Your task to perform on an android device: Open eBay Image 0: 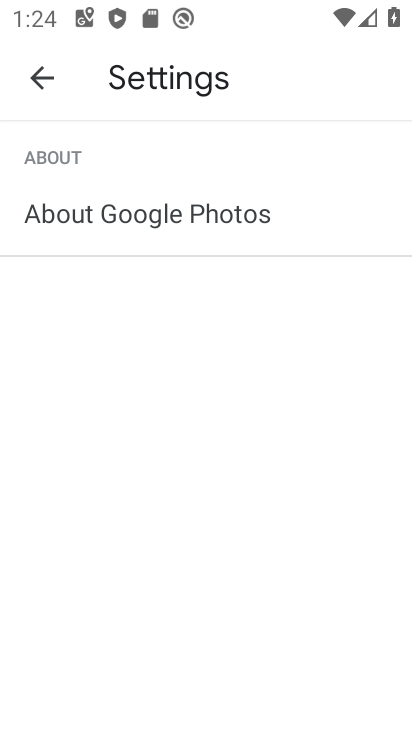
Step 0: click (39, 77)
Your task to perform on an android device: Open eBay Image 1: 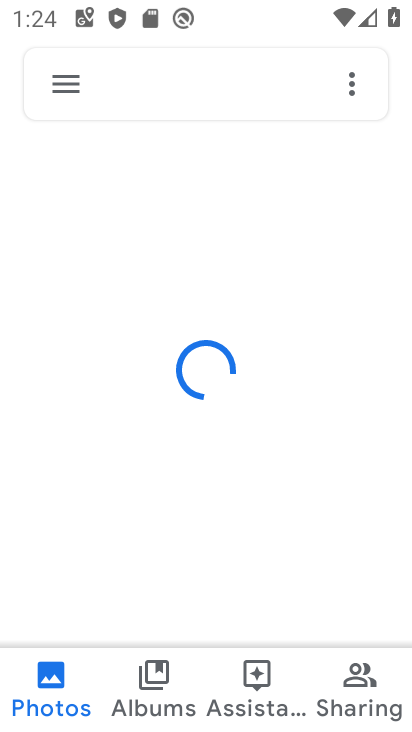
Step 1: press back button
Your task to perform on an android device: Open eBay Image 2: 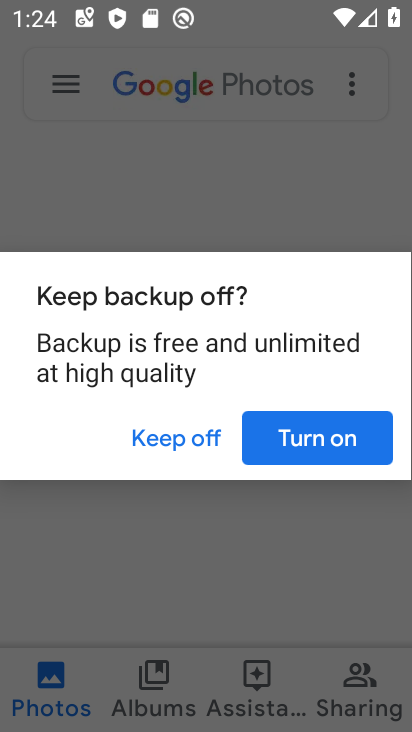
Step 2: click (177, 438)
Your task to perform on an android device: Open eBay Image 3: 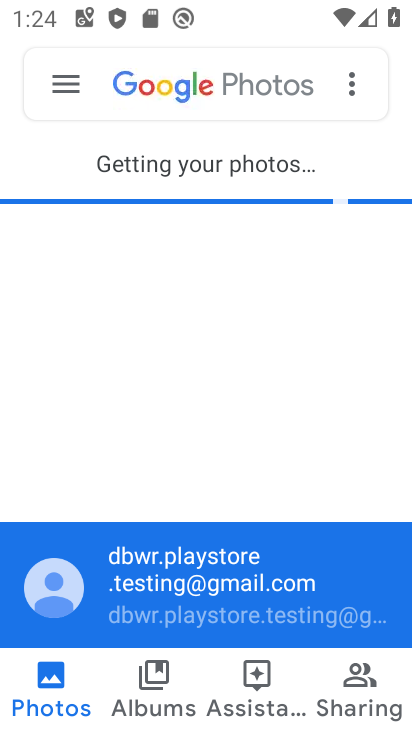
Step 3: press home button
Your task to perform on an android device: Open eBay Image 4: 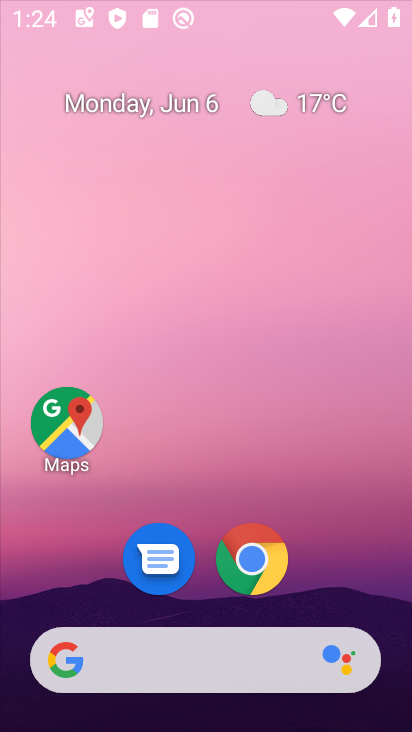
Step 4: drag from (253, 441) to (201, 126)
Your task to perform on an android device: Open eBay Image 5: 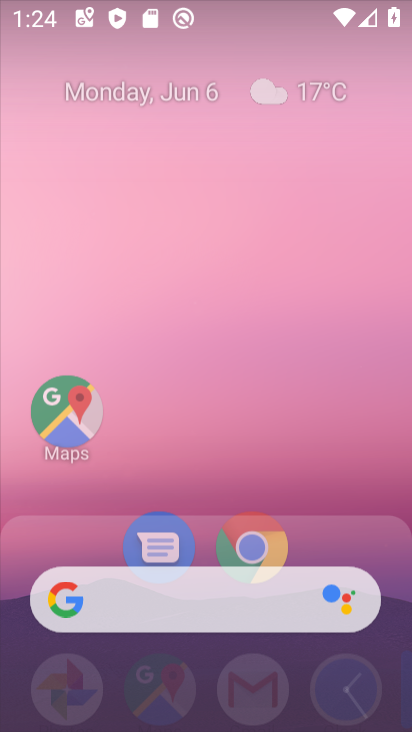
Step 5: drag from (230, 537) to (273, 326)
Your task to perform on an android device: Open eBay Image 6: 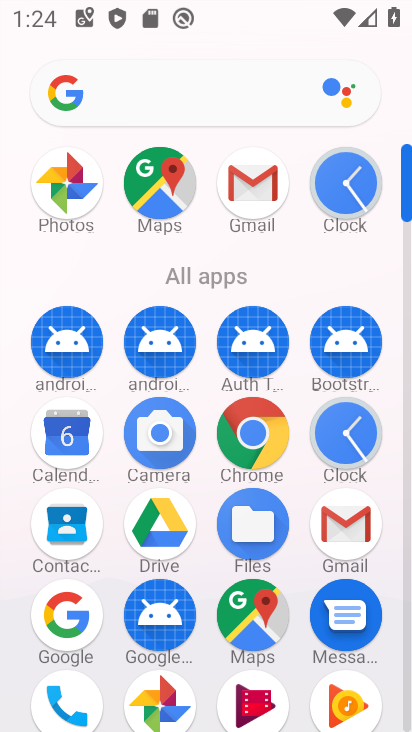
Step 6: drag from (203, 632) to (139, 206)
Your task to perform on an android device: Open eBay Image 7: 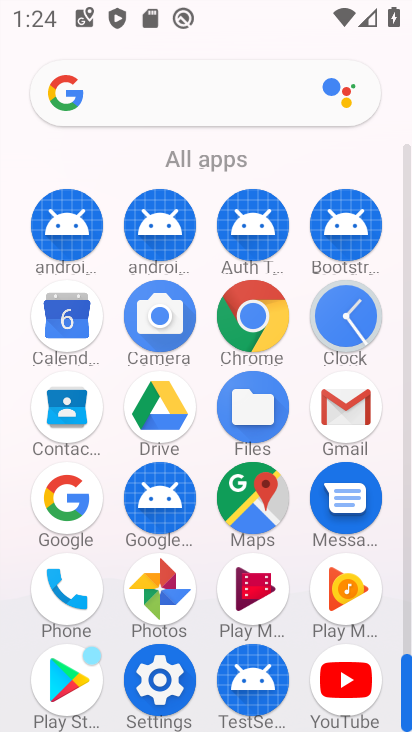
Step 7: click (243, 319)
Your task to perform on an android device: Open eBay Image 8: 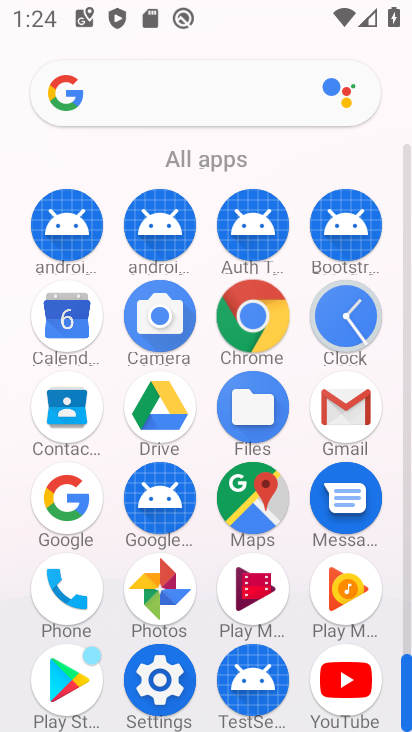
Step 8: click (245, 317)
Your task to perform on an android device: Open eBay Image 9: 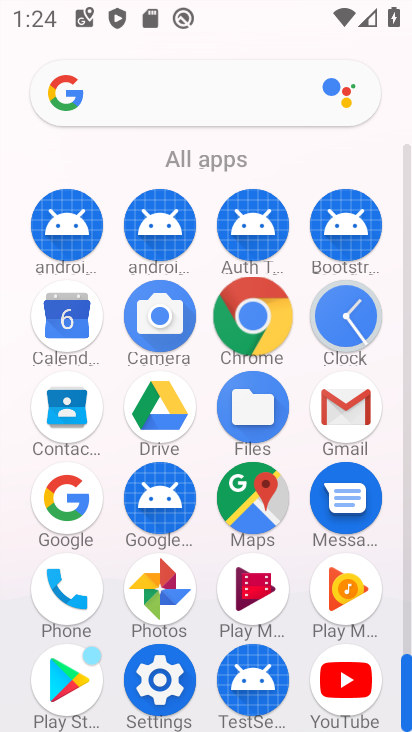
Step 9: click (246, 320)
Your task to perform on an android device: Open eBay Image 10: 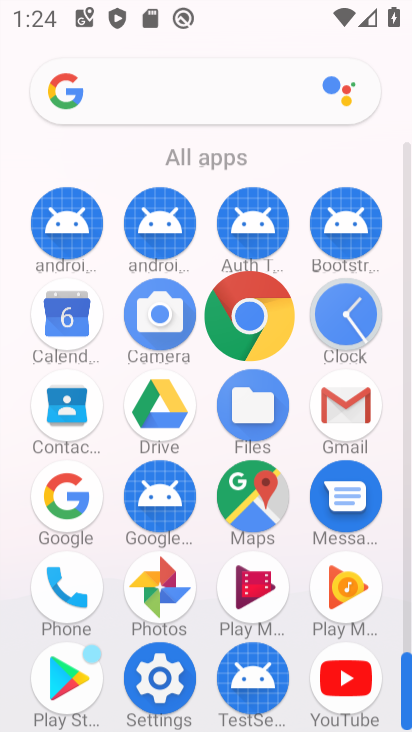
Step 10: click (232, 337)
Your task to perform on an android device: Open eBay Image 11: 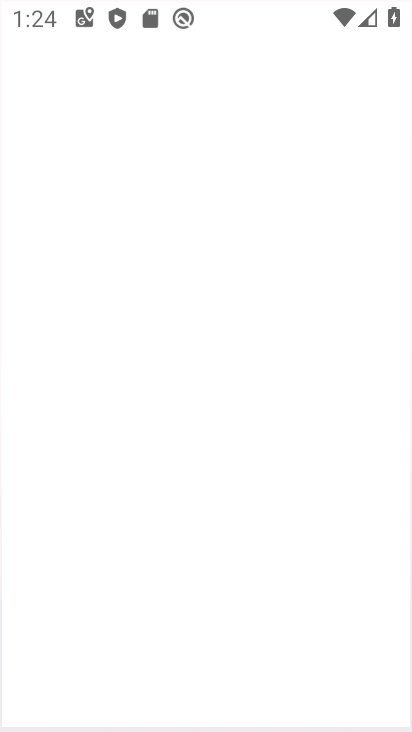
Step 11: click (227, 340)
Your task to perform on an android device: Open eBay Image 12: 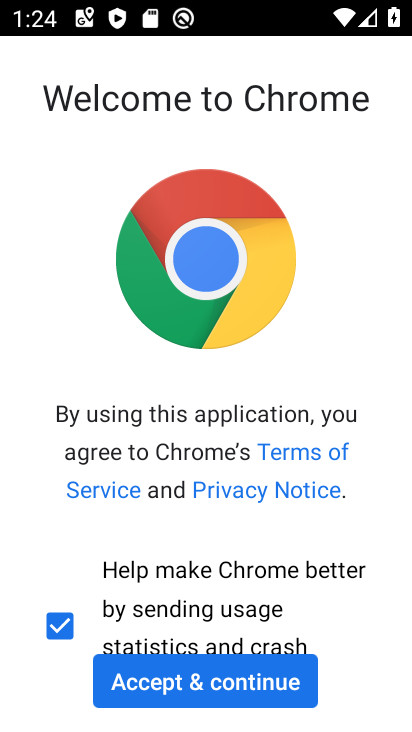
Step 12: drag from (216, 682) to (264, 655)
Your task to perform on an android device: Open eBay Image 13: 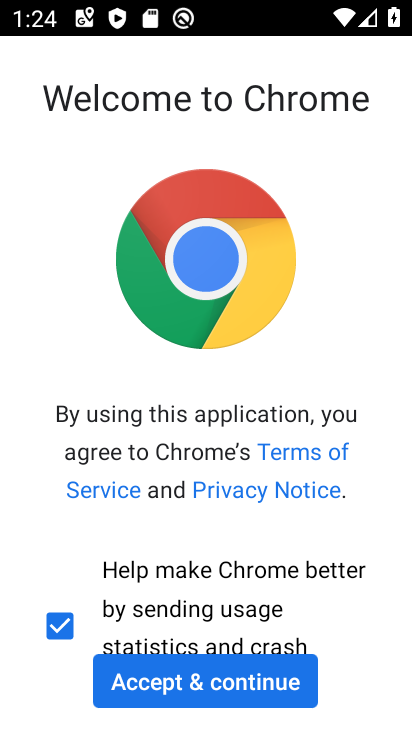
Step 13: click (265, 654)
Your task to perform on an android device: Open eBay Image 14: 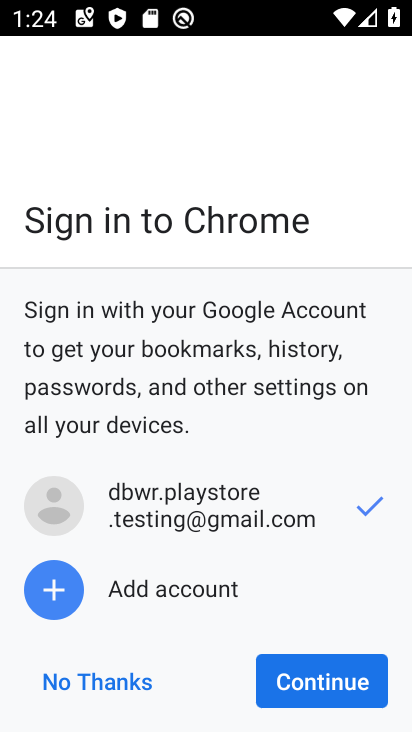
Step 14: click (263, 658)
Your task to perform on an android device: Open eBay Image 15: 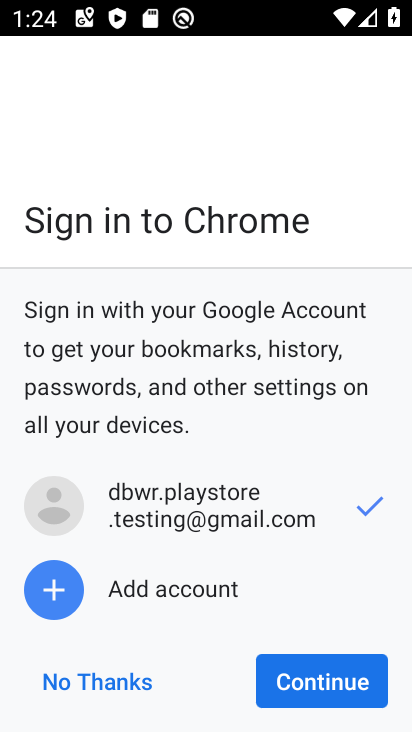
Step 15: click (250, 661)
Your task to perform on an android device: Open eBay Image 16: 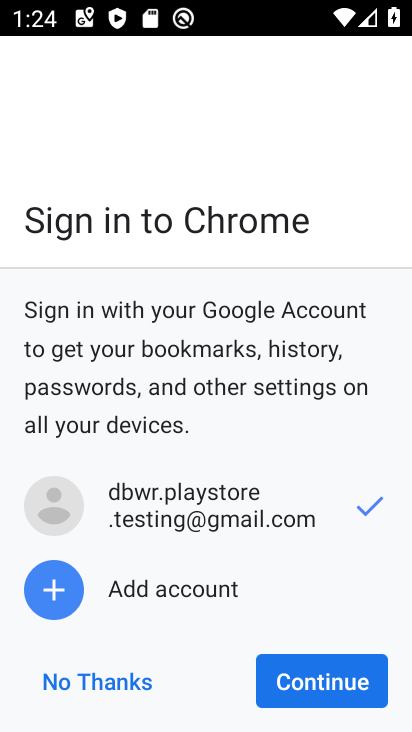
Step 16: click (242, 664)
Your task to perform on an android device: Open eBay Image 17: 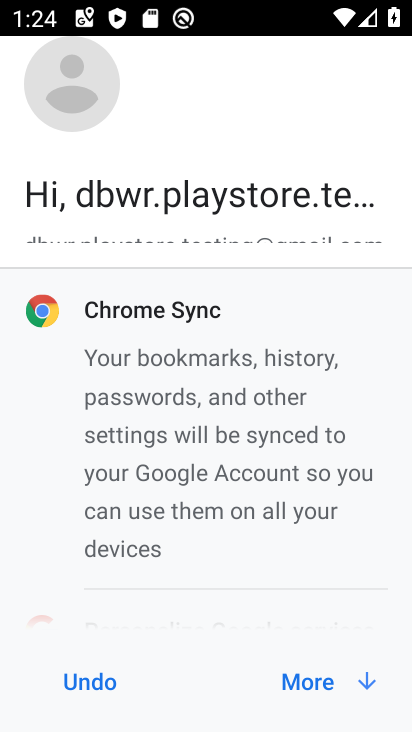
Step 17: click (320, 681)
Your task to perform on an android device: Open eBay Image 18: 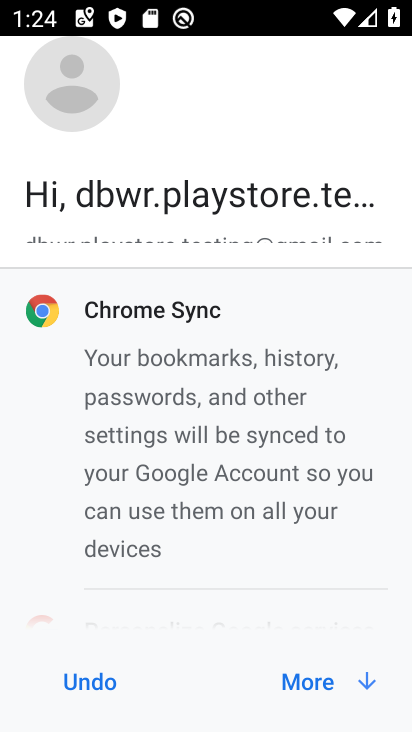
Step 18: click (319, 682)
Your task to perform on an android device: Open eBay Image 19: 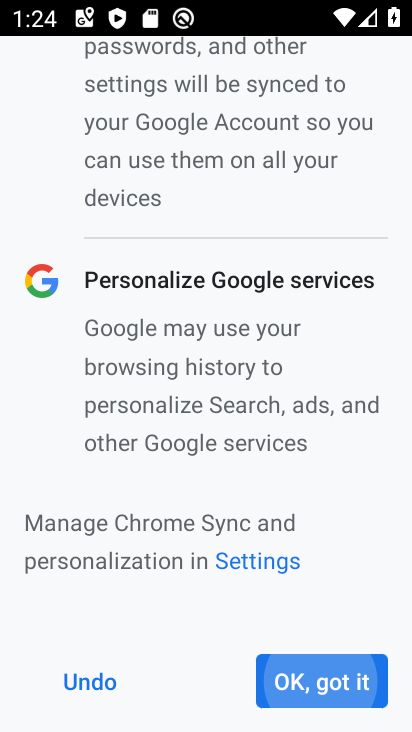
Step 19: click (322, 679)
Your task to perform on an android device: Open eBay Image 20: 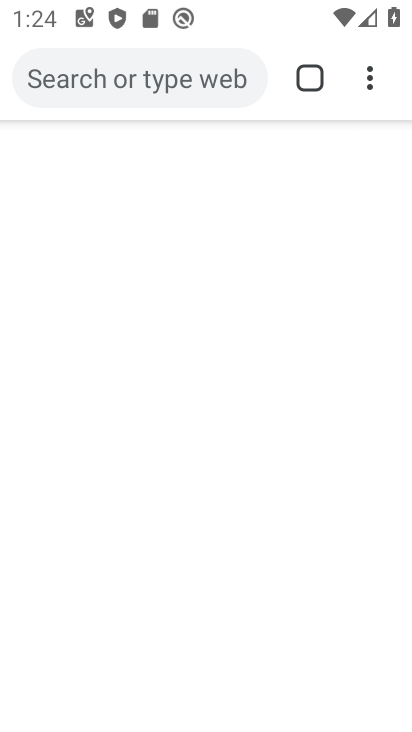
Step 20: click (322, 665)
Your task to perform on an android device: Open eBay Image 21: 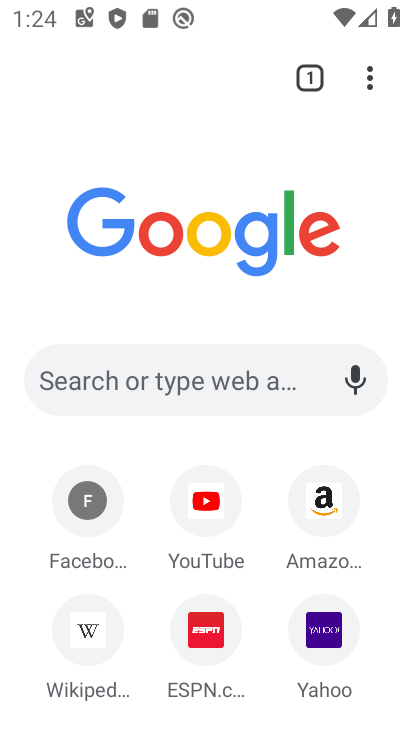
Step 21: click (76, 377)
Your task to perform on an android device: Open eBay Image 22: 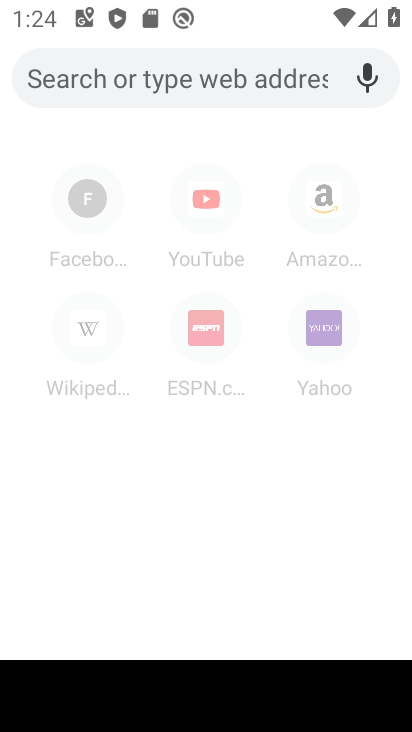
Step 22: type "ebay.com"
Your task to perform on an android device: Open eBay Image 23: 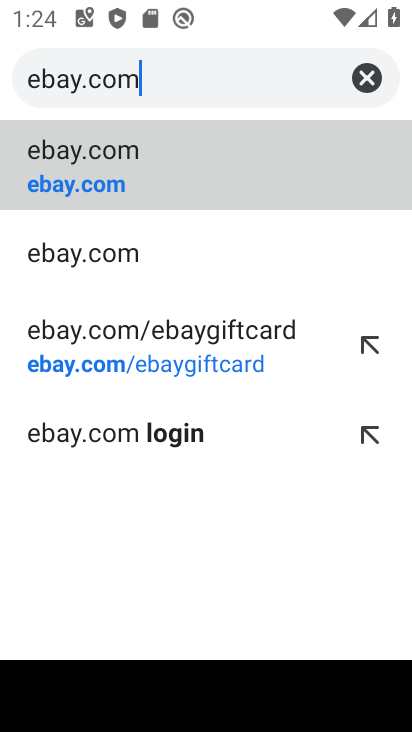
Step 23: click (64, 181)
Your task to perform on an android device: Open eBay Image 24: 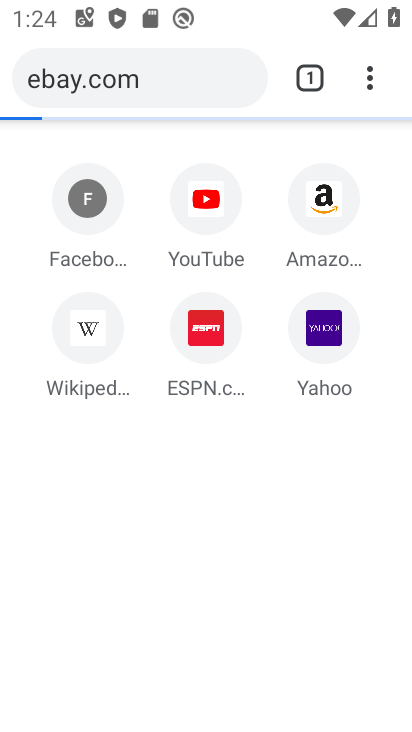
Step 24: click (64, 181)
Your task to perform on an android device: Open eBay Image 25: 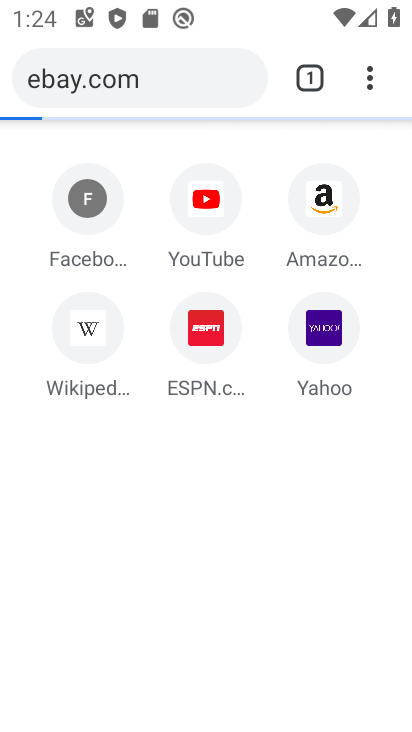
Step 25: click (64, 181)
Your task to perform on an android device: Open eBay Image 26: 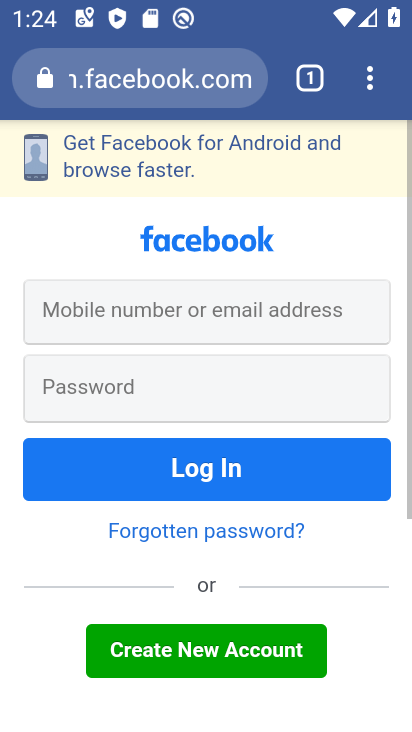
Step 26: task complete